Your task to perform on an android device: turn on showing notifications on the lock screen Image 0: 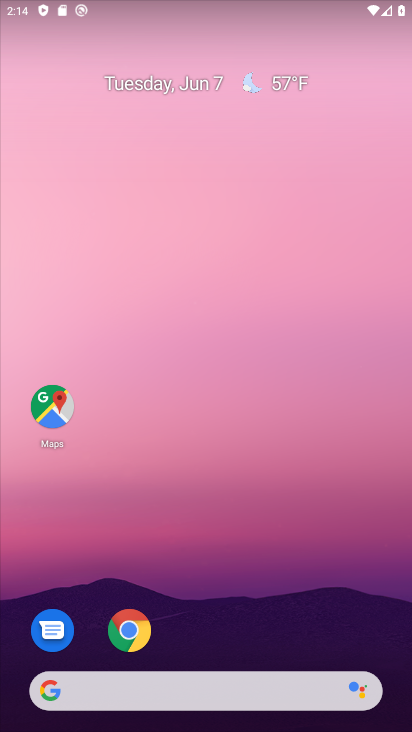
Step 0: drag from (370, 600) to (316, 190)
Your task to perform on an android device: turn on showing notifications on the lock screen Image 1: 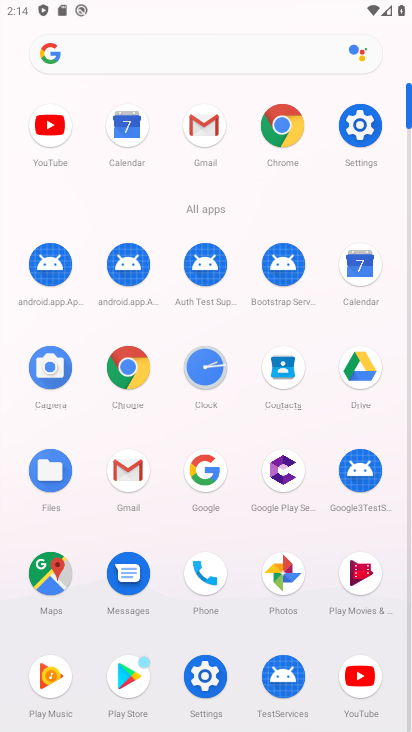
Step 1: click (366, 129)
Your task to perform on an android device: turn on showing notifications on the lock screen Image 2: 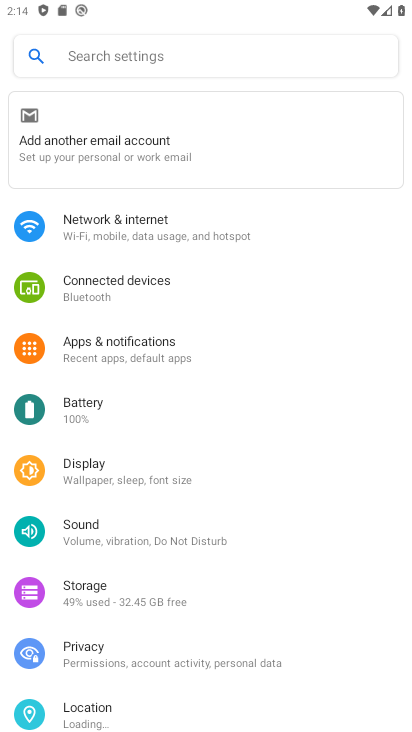
Step 2: click (120, 347)
Your task to perform on an android device: turn on showing notifications on the lock screen Image 3: 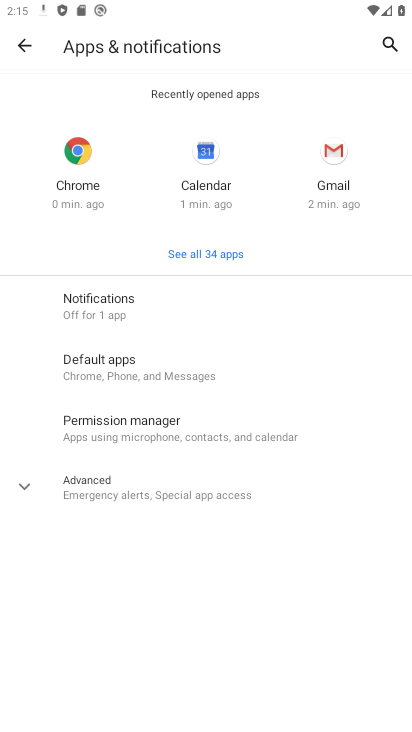
Step 3: click (88, 316)
Your task to perform on an android device: turn on showing notifications on the lock screen Image 4: 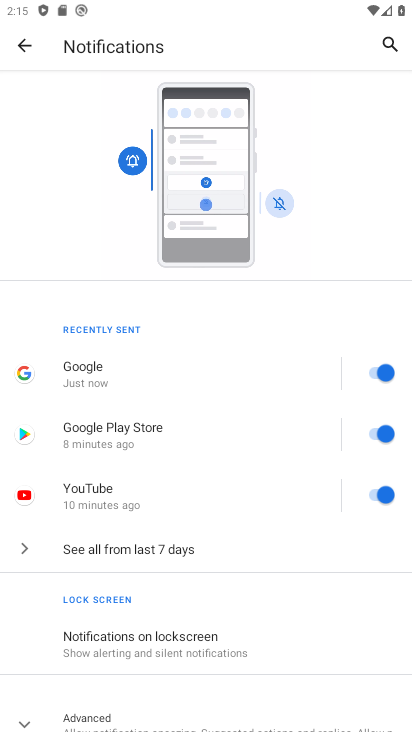
Step 4: click (167, 645)
Your task to perform on an android device: turn on showing notifications on the lock screen Image 5: 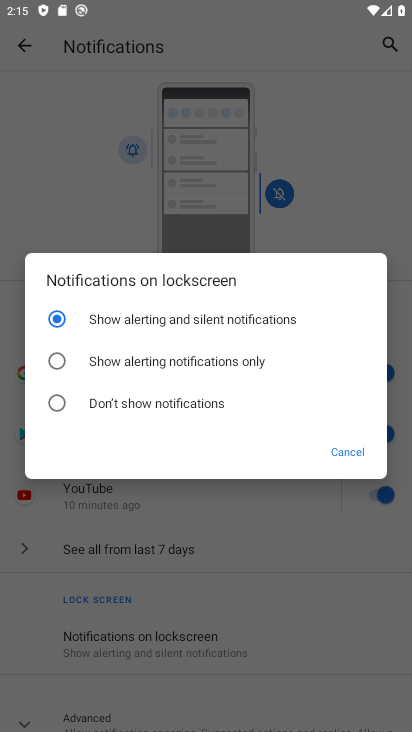
Step 5: click (347, 445)
Your task to perform on an android device: turn on showing notifications on the lock screen Image 6: 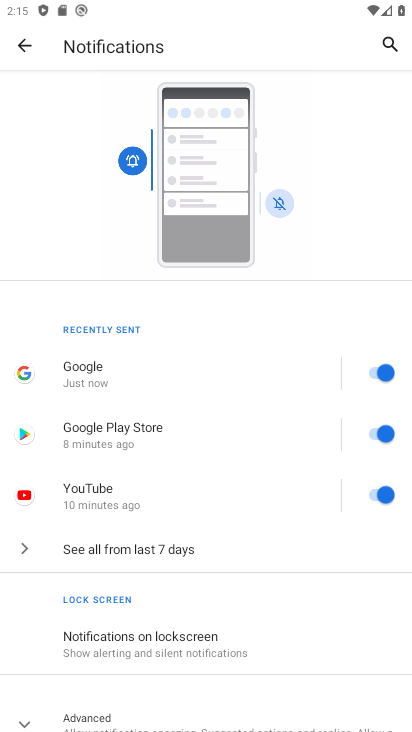
Step 6: task complete